Your task to perform on an android device: Is it going to rain this weekend? Image 0: 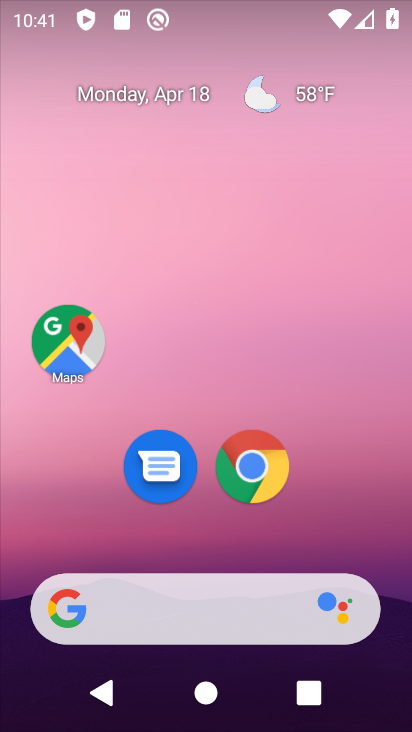
Step 0: drag from (208, 598) to (241, 662)
Your task to perform on an android device: Is it going to rain this weekend? Image 1: 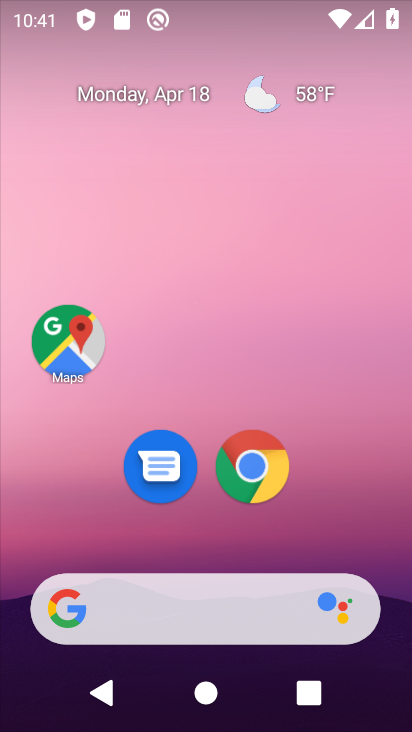
Step 1: drag from (19, 238) to (310, 337)
Your task to perform on an android device: Is it going to rain this weekend? Image 2: 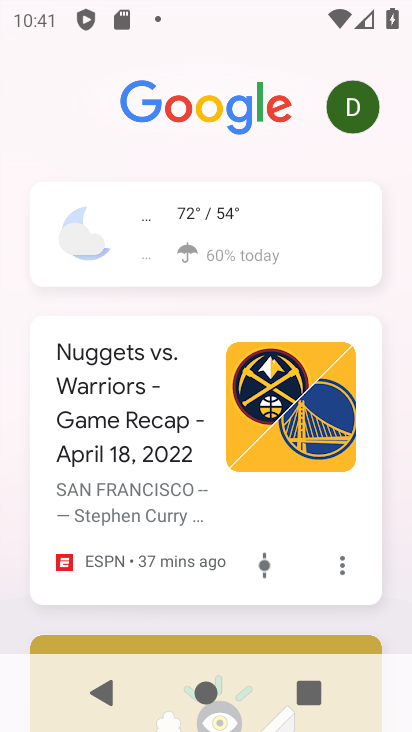
Step 2: click (90, 261)
Your task to perform on an android device: Is it going to rain this weekend? Image 3: 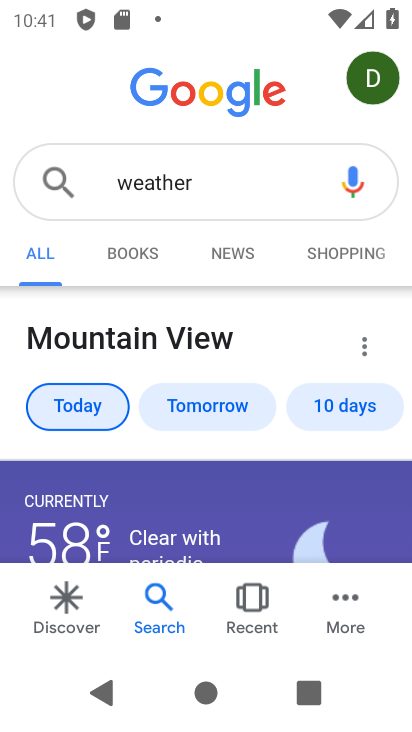
Step 3: click (337, 429)
Your task to perform on an android device: Is it going to rain this weekend? Image 4: 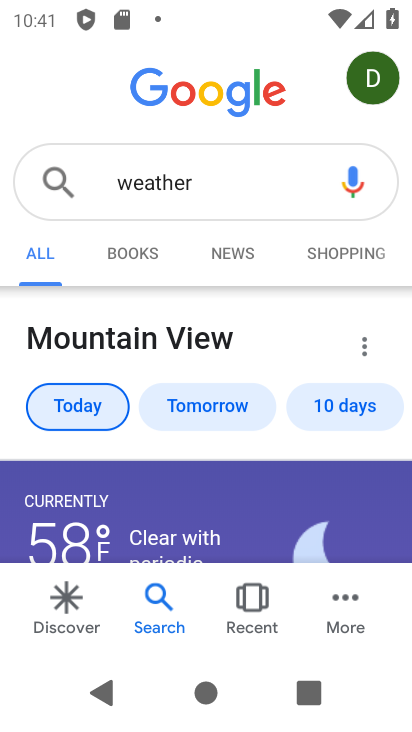
Step 4: click (355, 410)
Your task to perform on an android device: Is it going to rain this weekend? Image 5: 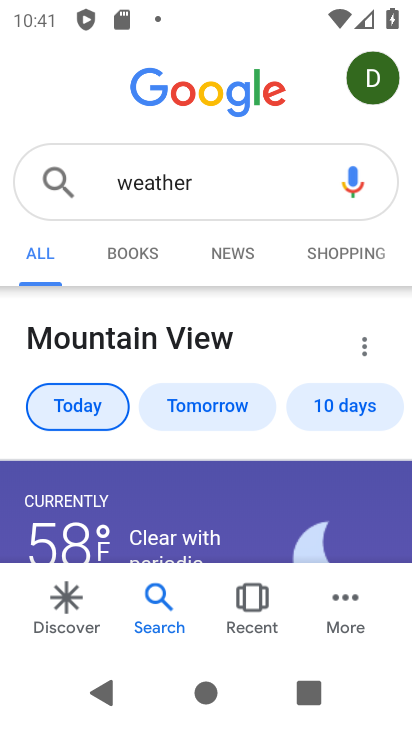
Step 5: click (345, 413)
Your task to perform on an android device: Is it going to rain this weekend? Image 6: 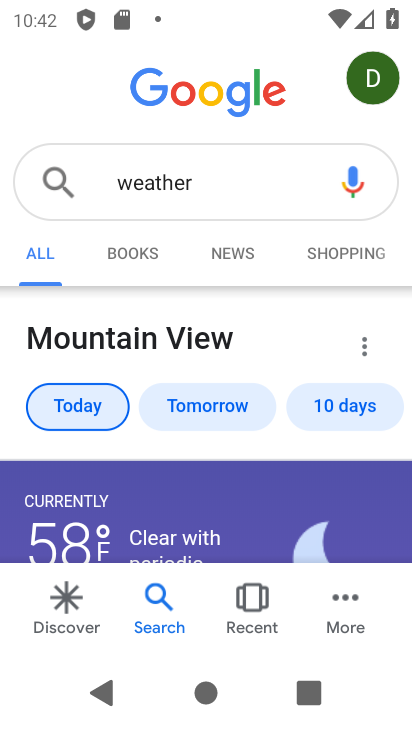
Step 6: click (345, 413)
Your task to perform on an android device: Is it going to rain this weekend? Image 7: 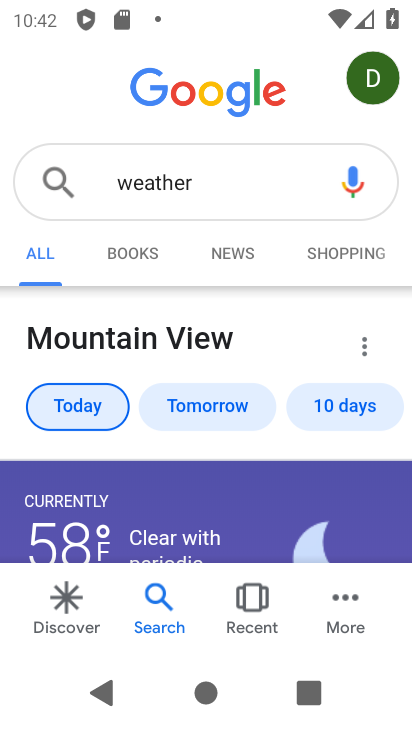
Step 7: click (323, 418)
Your task to perform on an android device: Is it going to rain this weekend? Image 8: 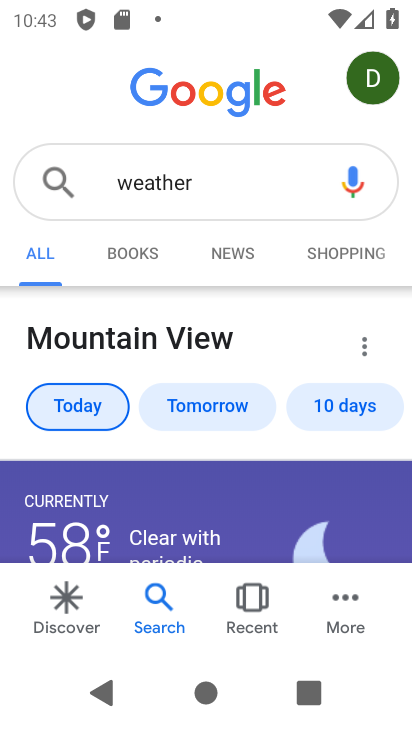
Step 8: click (313, 409)
Your task to perform on an android device: Is it going to rain this weekend? Image 9: 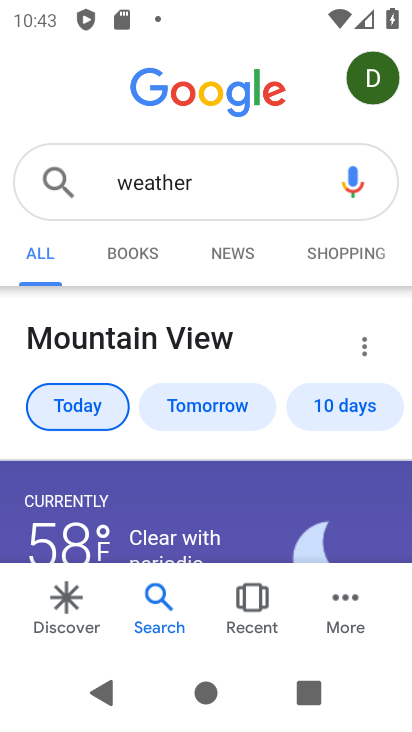
Step 9: click (208, 454)
Your task to perform on an android device: Is it going to rain this weekend? Image 10: 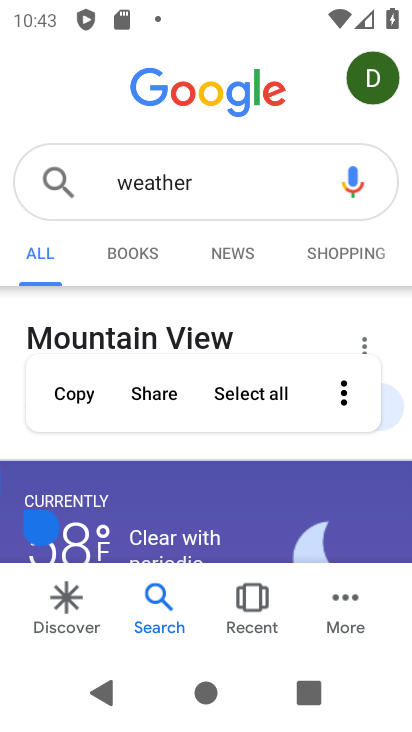
Step 10: drag from (201, 475) to (190, 98)
Your task to perform on an android device: Is it going to rain this weekend? Image 11: 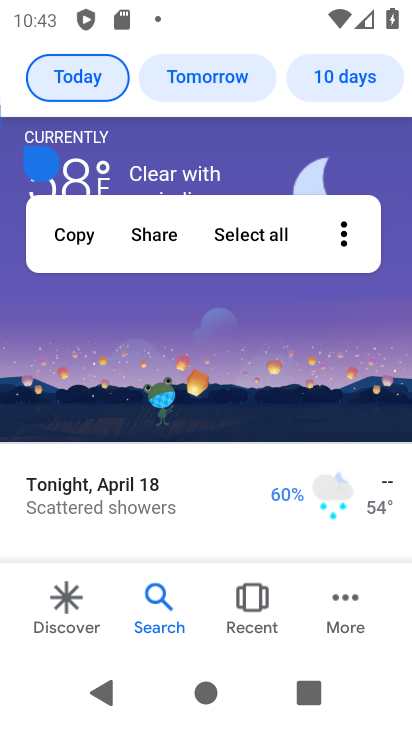
Step 11: click (222, 424)
Your task to perform on an android device: Is it going to rain this weekend? Image 12: 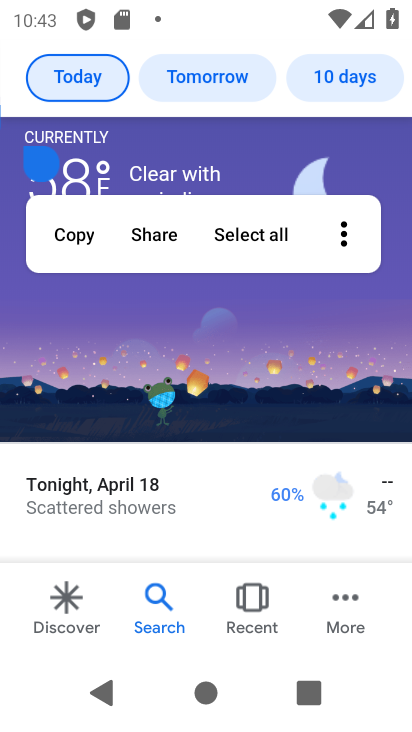
Step 12: task complete